Your task to perform on an android device: Open settings Image 0: 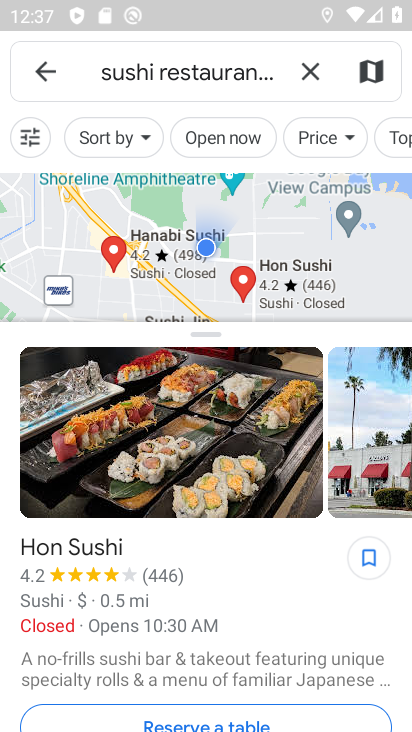
Step 0: press home button
Your task to perform on an android device: Open settings Image 1: 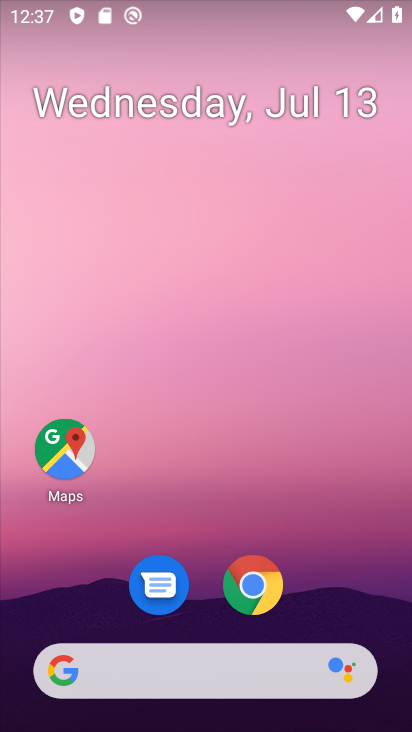
Step 1: drag from (351, 597) to (307, 15)
Your task to perform on an android device: Open settings Image 2: 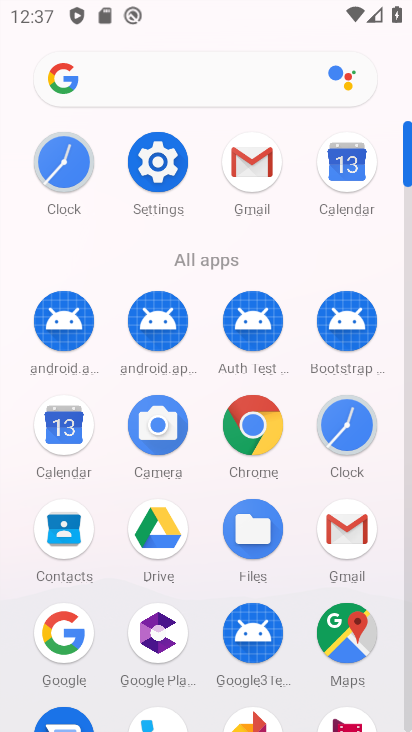
Step 2: click (162, 167)
Your task to perform on an android device: Open settings Image 3: 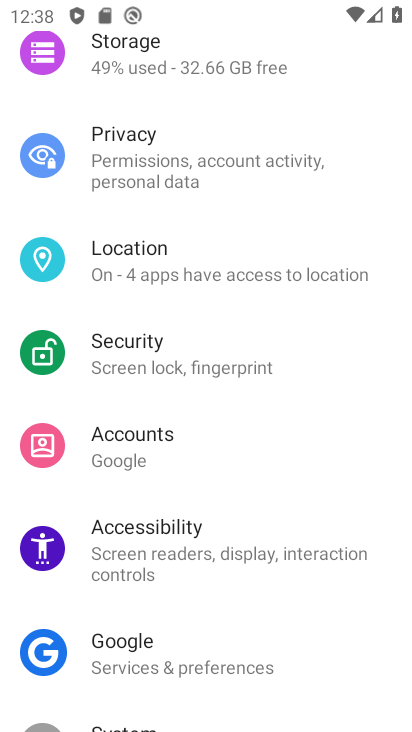
Step 3: task complete